Your task to perform on an android device: clear history in the chrome app Image 0: 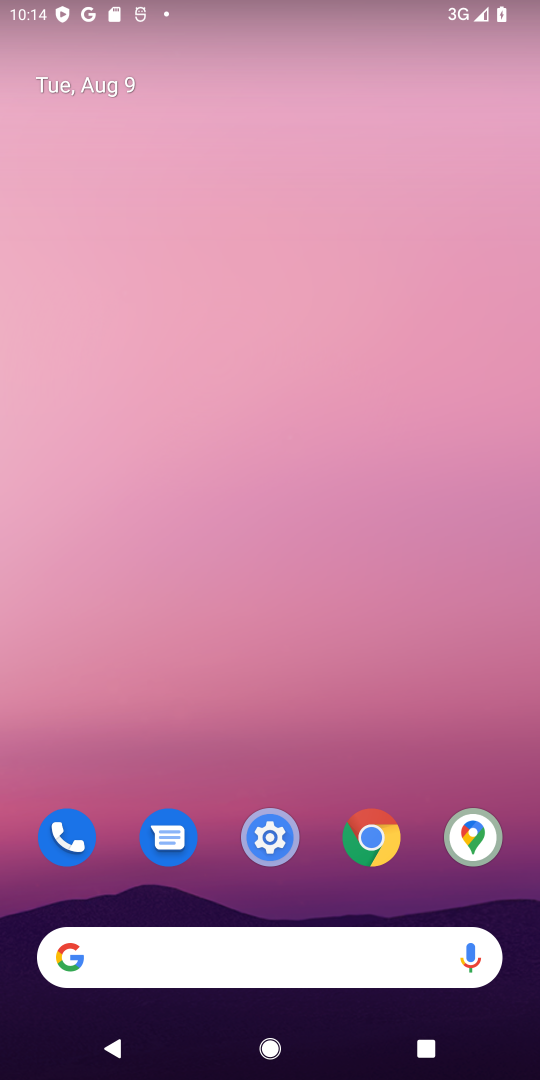
Step 0: click (367, 834)
Your task to perform on an android device: clear history in the chrome app Image 1: 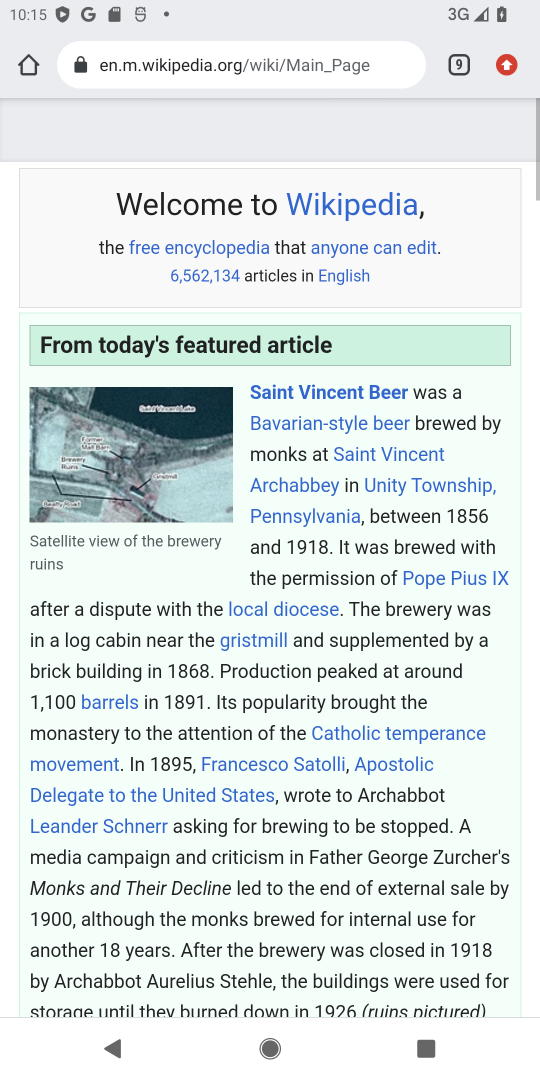
Step 1: click (506, 70)
Your task to perform on an android device: clear history in the chrome app Image 2: 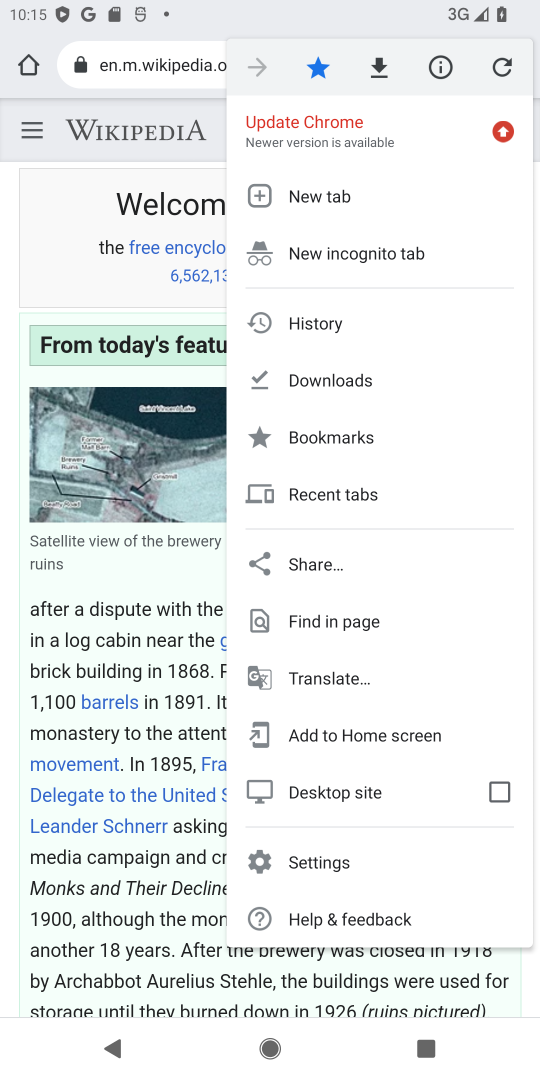
Step 2: click (322, 327)
Your task to perform on an android device: clear history in the chrome app Image 3: 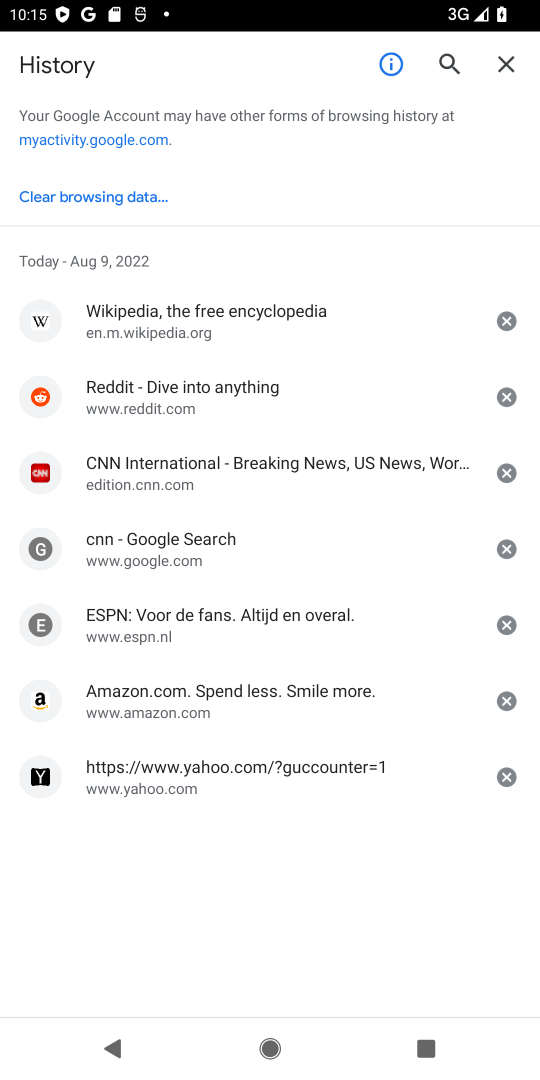
Step 3: click (135, 195)
Your task to perform on an android device: clear history in the chrome app Image 4: 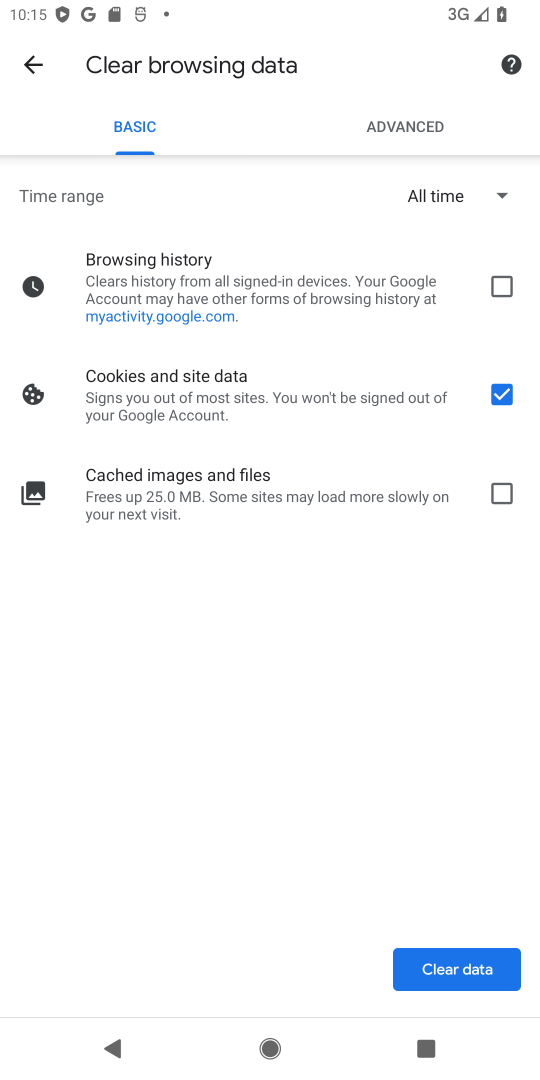
Step 4: click (500, 288)
Your task to perform on an android device: clear history in the chrome app Image 5: 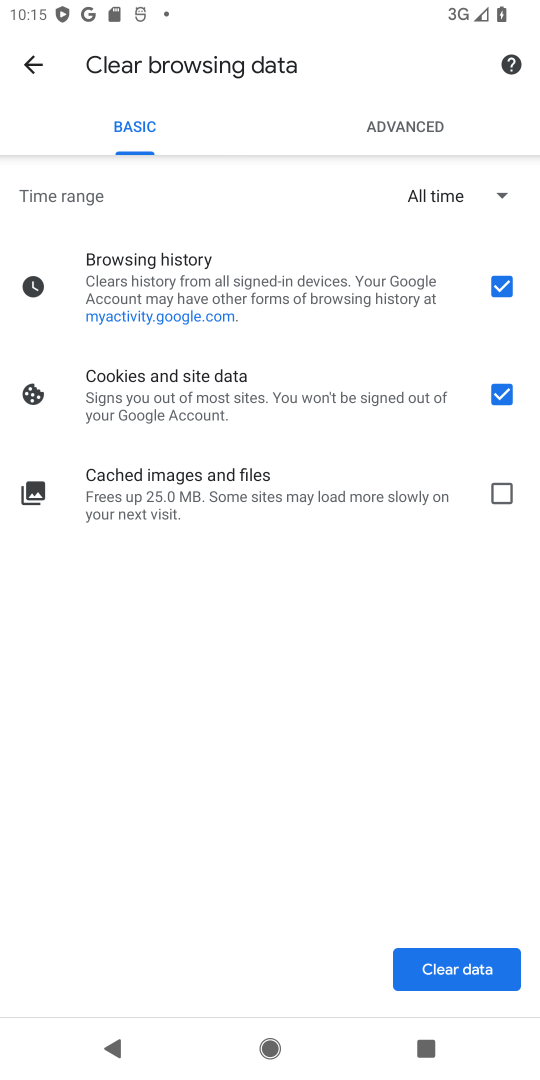
Step 5: click (505, 397)
Your task to perform on an android device: clear history in the chrome app Image 6: 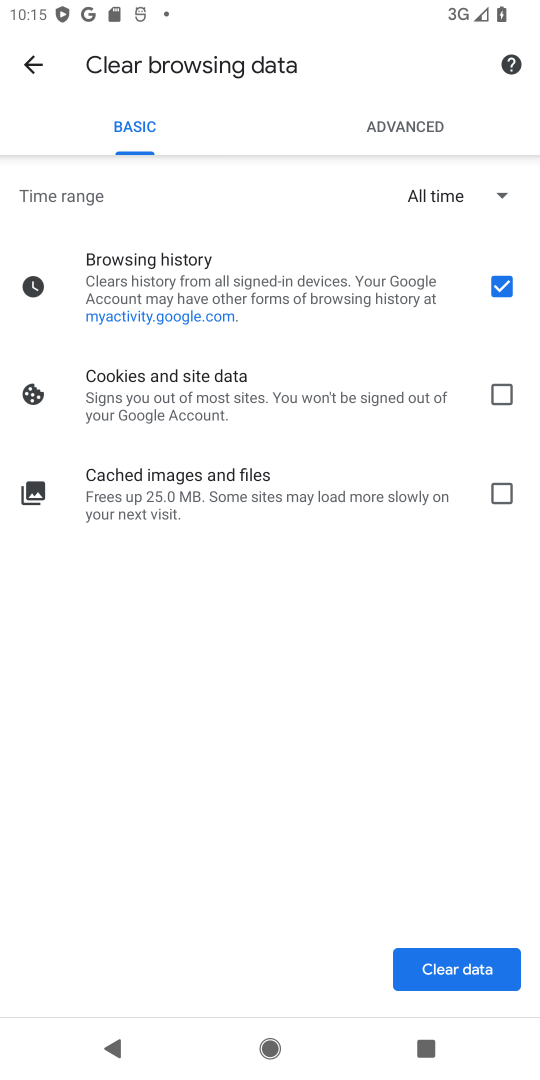
Step 6: click (468, 967)
Your task to perform on an android device: clear history in the chrome app Image 7: 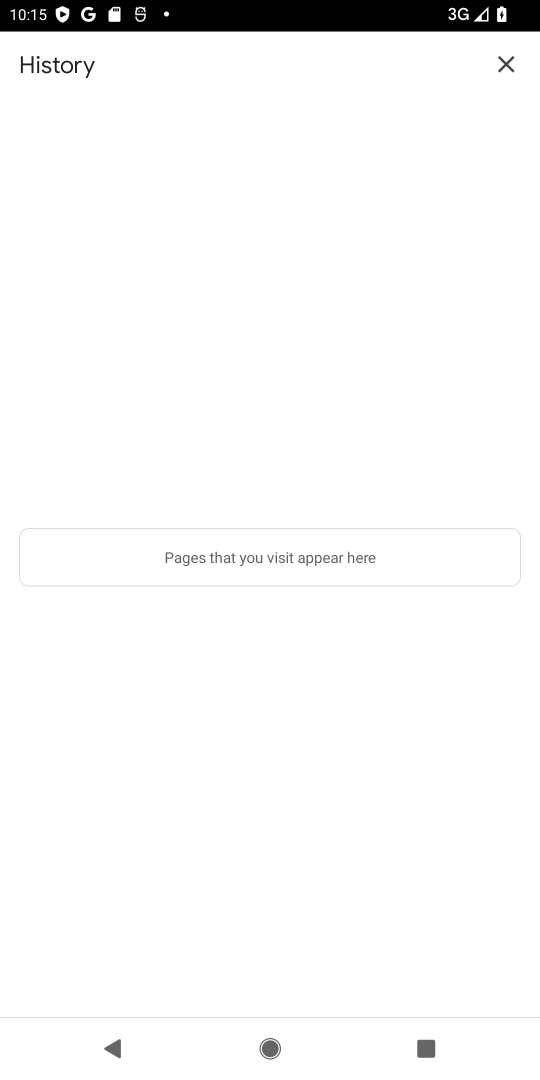
Step 7: task complete